Your task to perform on an android device: turn notification dots off Image 0: 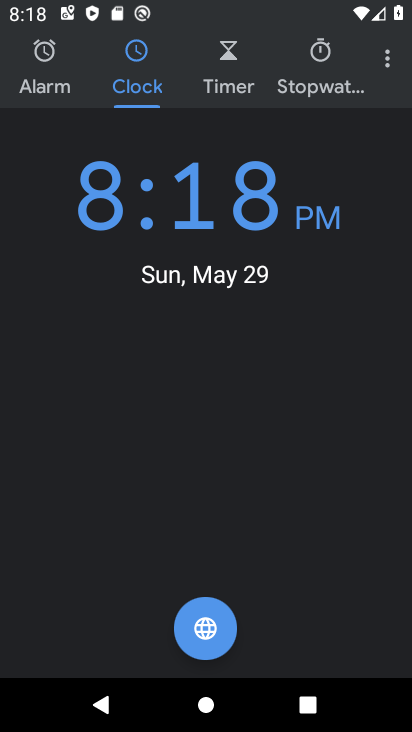
Step 0: press home button
Your task to perform on an android device: turn notification dots off Image 1: 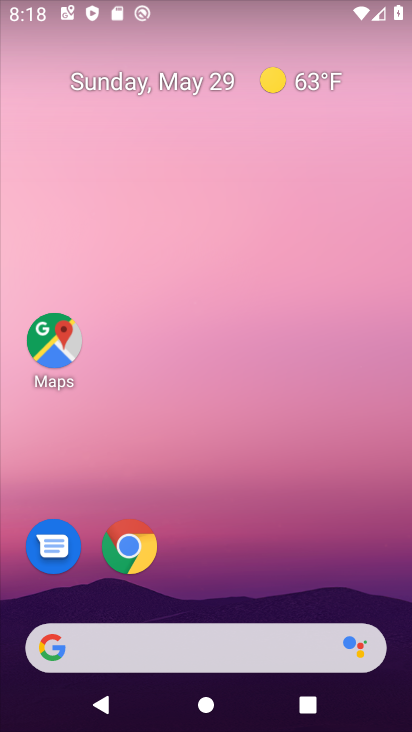
Step 1: drag from (190, 656) to (352, 116)
Your task to perform on an android device: turn notification dots off Image 2: 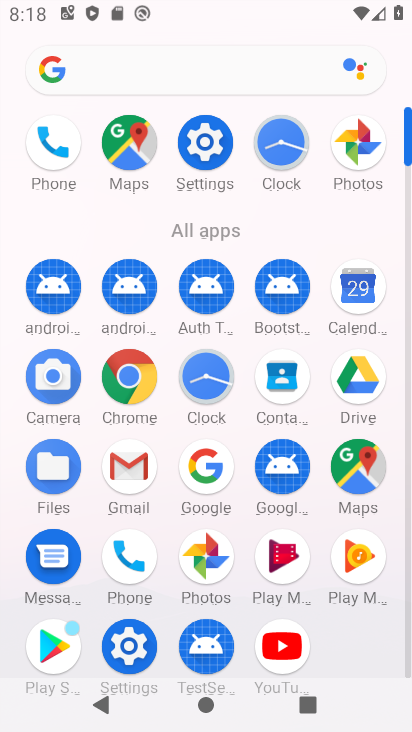
Step 2: click (204, 147)
Your task to perform on an android device: turn notification dots off Image 3: 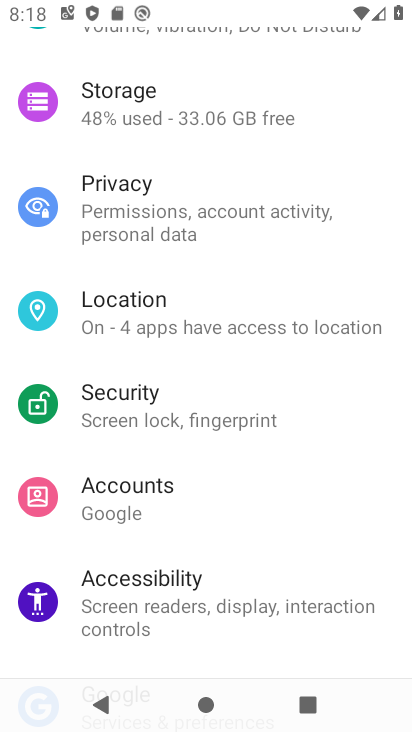
Step 3: drag from (298, 386) to (229, 646)
Your task to perform on an android device: turn notification dots off Image 4: 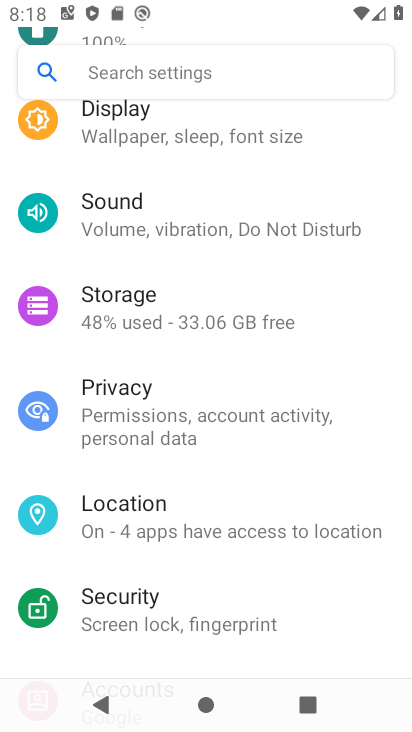
Step 4: drag from (280, 188) to (217, 575)
Your task to perform on an android device: turn notification dots off Image 5: 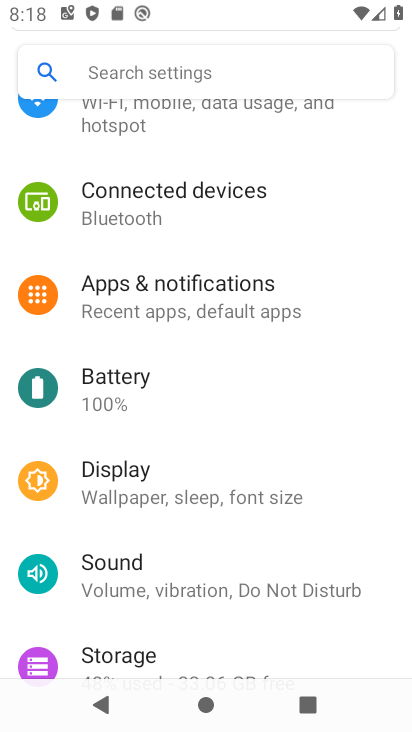
Step 5: click (242, 300)
Your task to perform on an android device: turn notification dots off Image 6: 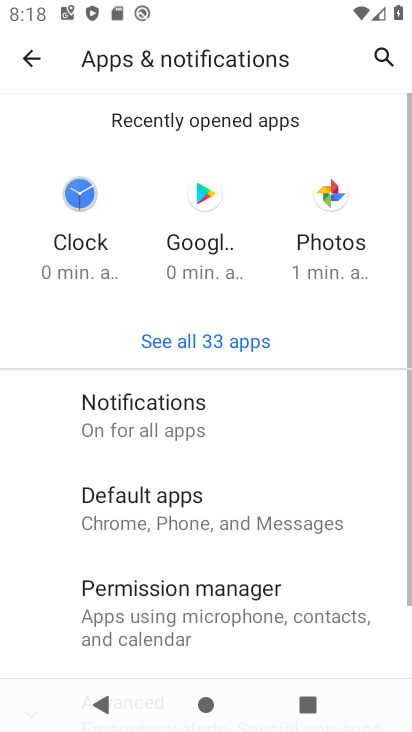
Step 6: click (168, 418)
Your task to perform on an android device: turn notification dots off Image 7: 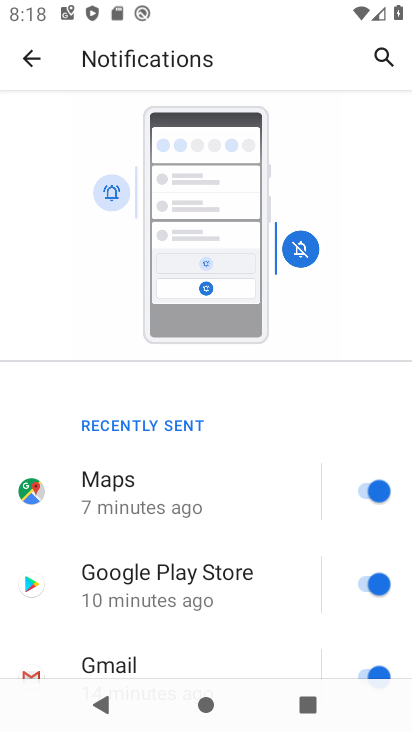
Step 7: drag from (232, 655) to (342, 47)
Your task to perform on an android device: turn notification dots off Image 8: 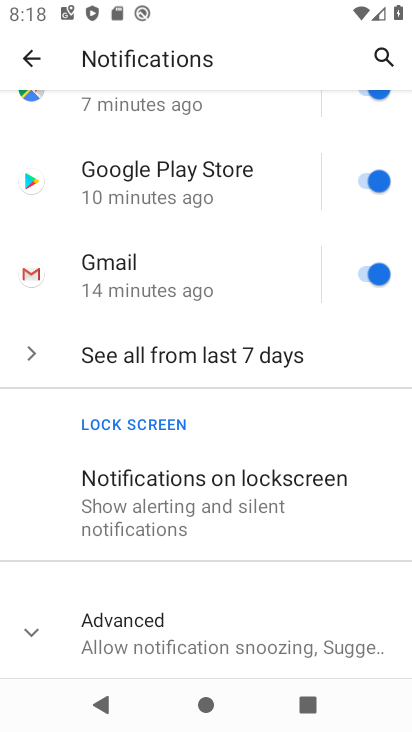
Step 8: click (150, 631)
Your task to perform on an android device: turn notification dots off Image 9: 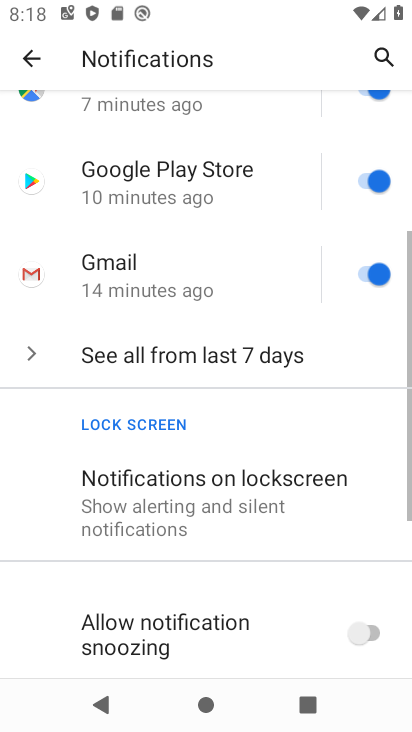
Step 9: drag from (262, 604) to (363, 20)
Your task to perform on an android device: turn notification dots off Image 10: 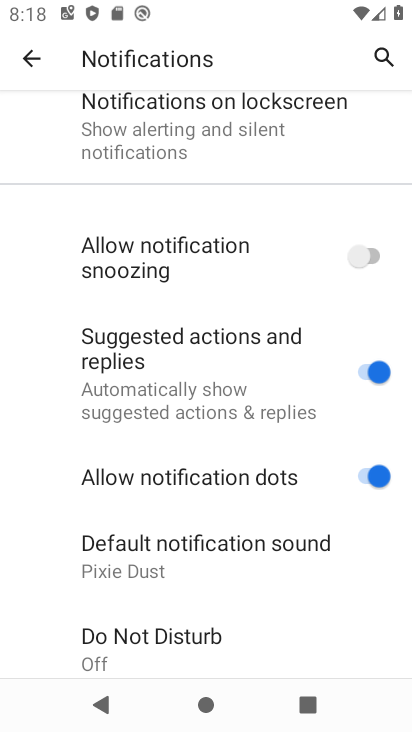
Step 10: click (362, 473)
Your task to perform on an android device: turn notification dots off Image 11: 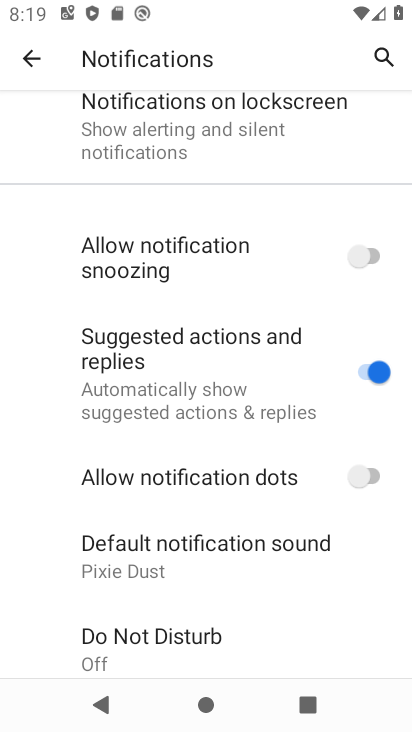
Step 11: task complete